Your task to perform on an android device: Go to accessibility settings Image 0: 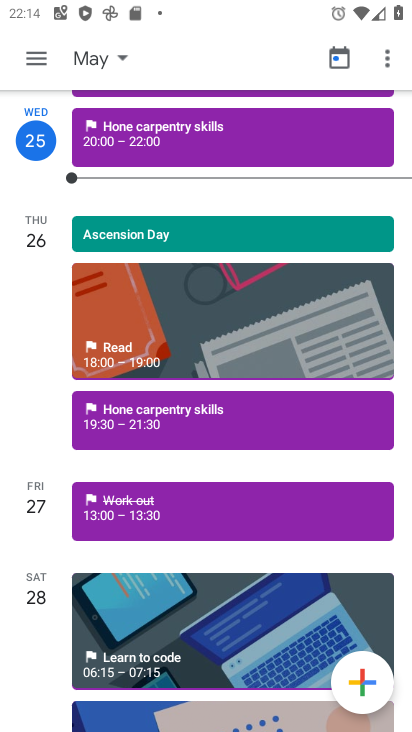
Step 0: press home button
Your task to perform on an android device: Go to accessibility settings Image 1: 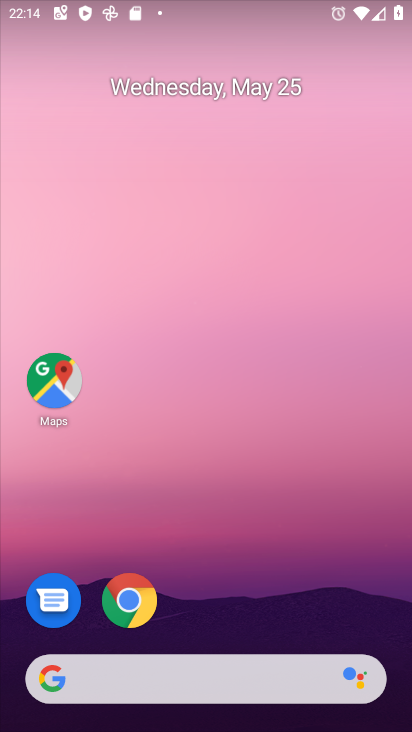
Step 1: drag from (361, 599) to (353, 176)
Your task to perform on an android device: Go to accessibility settings Image 2: 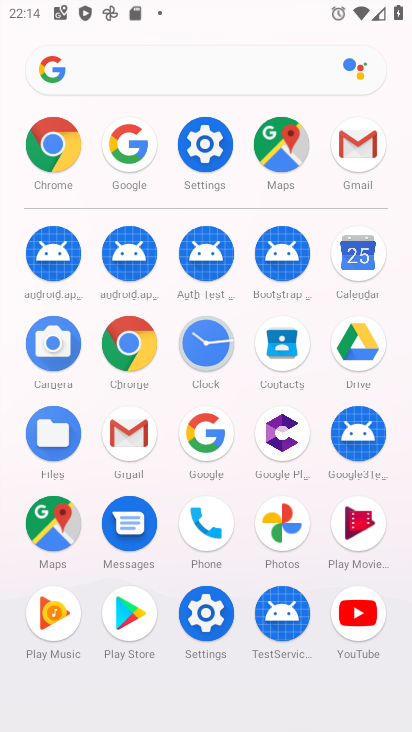
Step 2: click (217, 623)
Your task to perform on an android device: Go to accessibility settings Image 3: 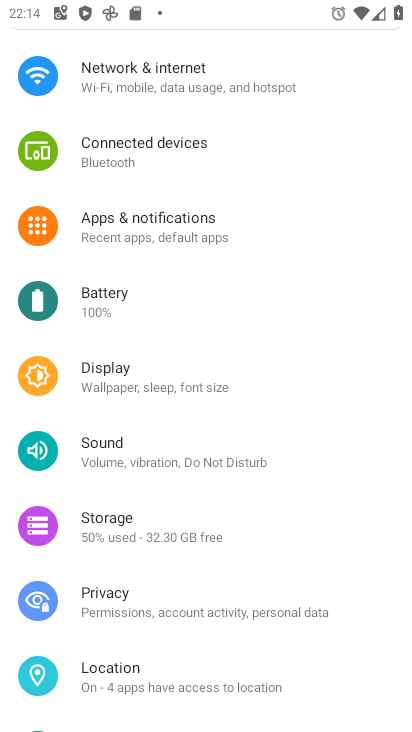
Step 3: drag from (266, 672) to (368, 295)
Your task to perform on an android device: Go to accessibility settings Image 4: 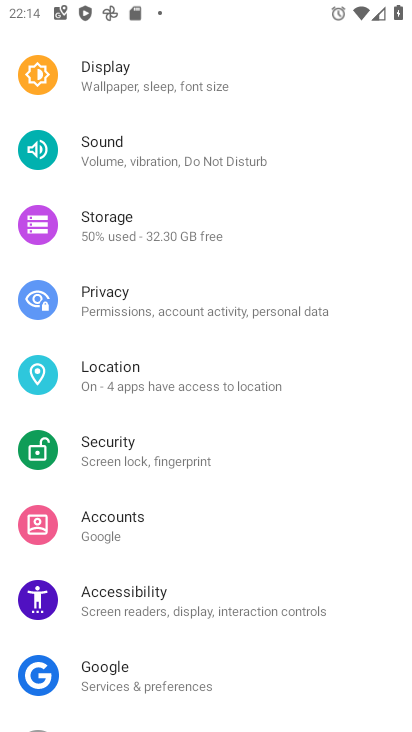
Step 4: click (125, 592)
Your task to perform on an android device: Go to accessibility settings Image 5: 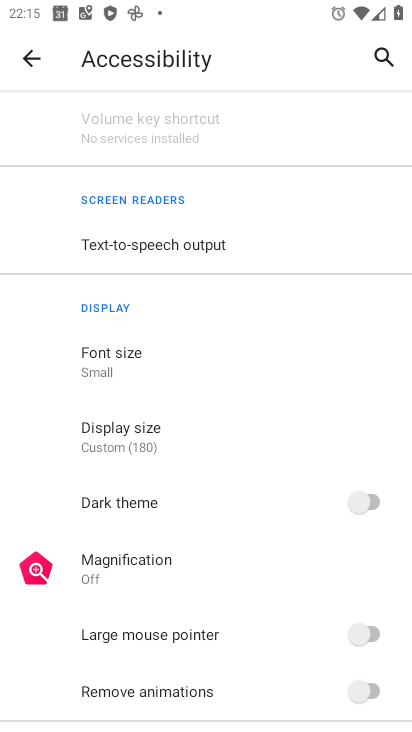
Step 5: task complete